Your task to perform on an android device: turn notification dots off Image 0: 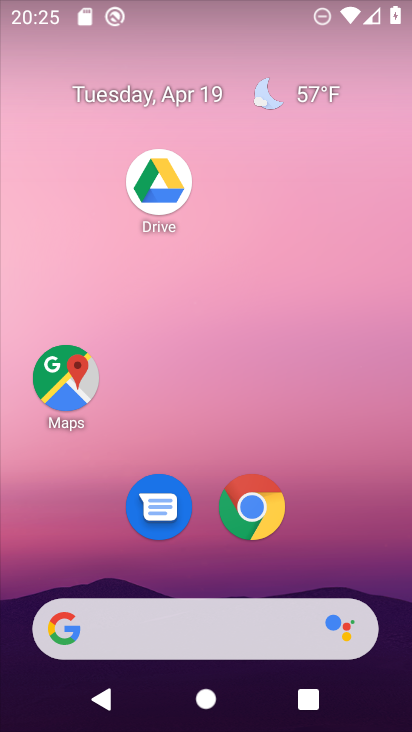
Step 0: drag from (349, 518) to (297, 132)
Your task to perform on an android device: turn notification dots off Image 1: 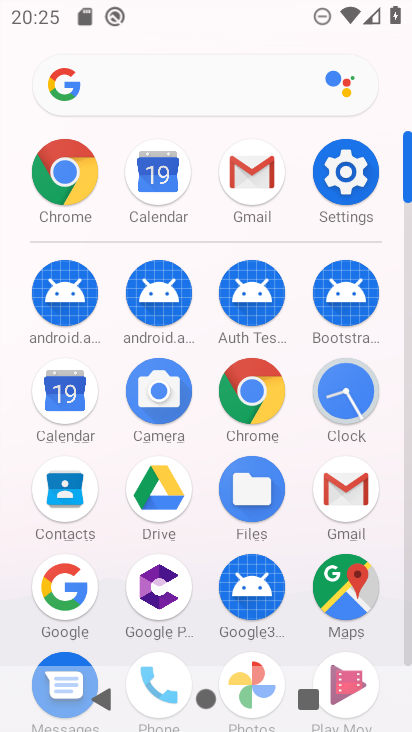
Step 1: click (333, 169)
Your task to perform on an android device: turn notification dots off Image 2: 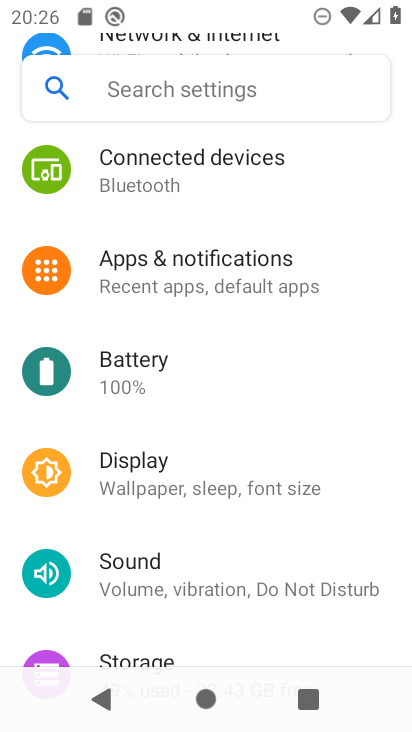
Step 2: click (258, 266)
Your task to perform on an android device: turn notification dots off Image 3: 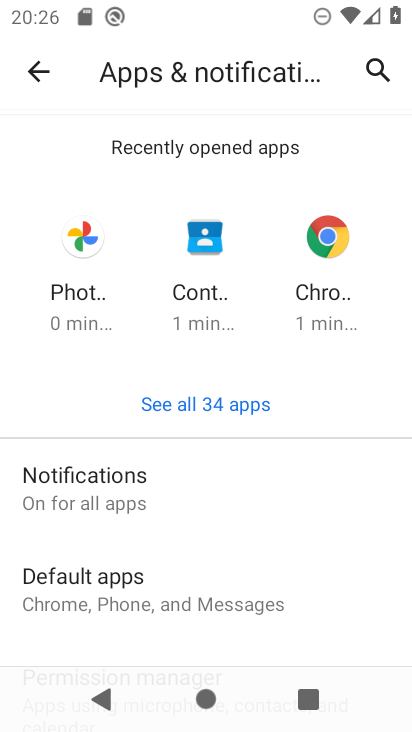
Step 3: click (187, 495)
Your task to perform on an android device: turn notification dots off Image 4: 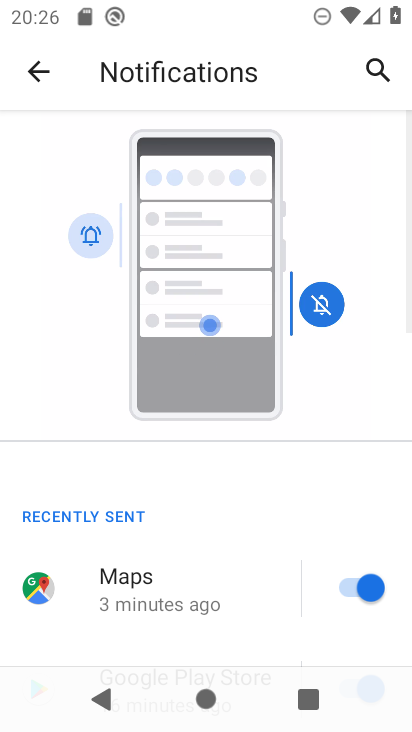
Step 4: drag from (212, 546) to (221, 196)
Your task to perform on an android device: turn notification dots off Image 5: 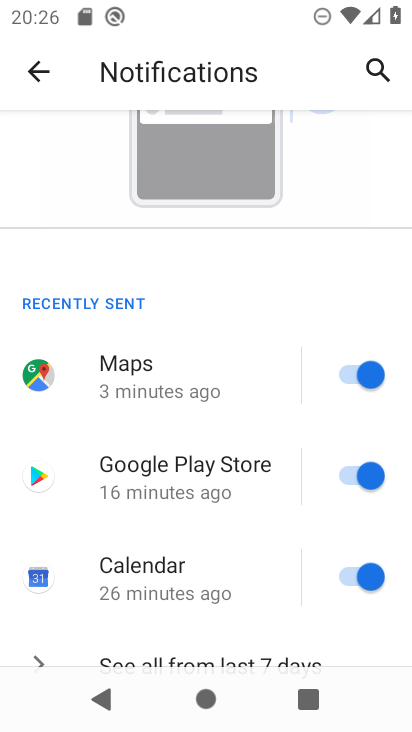
Step 5: drag from (253, 547) to (269, 225)
Your task to perform on an android device: turn notification dots off Image 6: 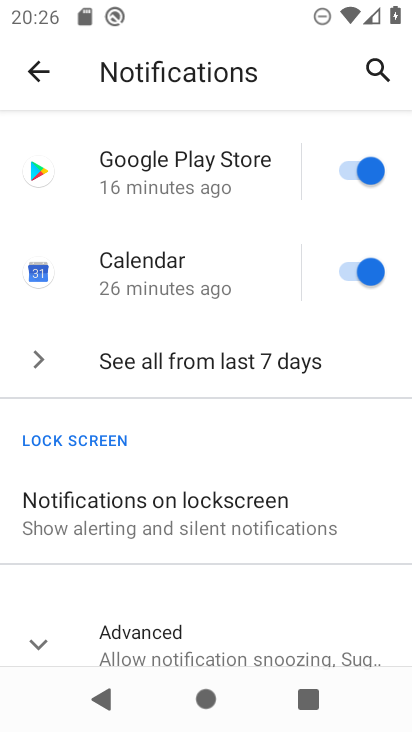
Step 6: click (34, 636)
Your task to perform on an android device: turn notification dots off Image 7: 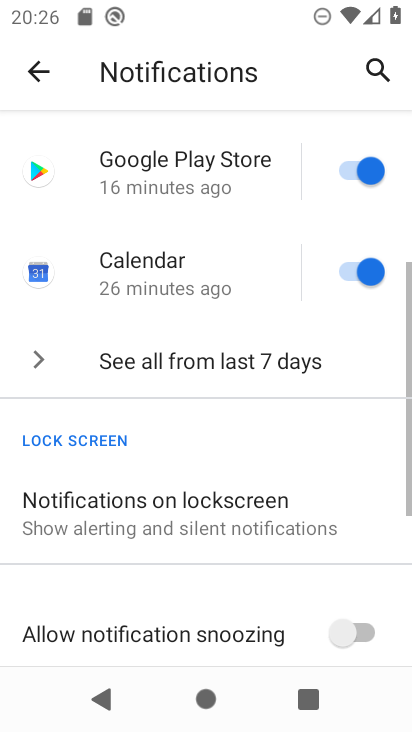
Step 7: drag from (227, 595) to (221, 206)
Your task to perform on an android device: turn notification dots off Image 8: 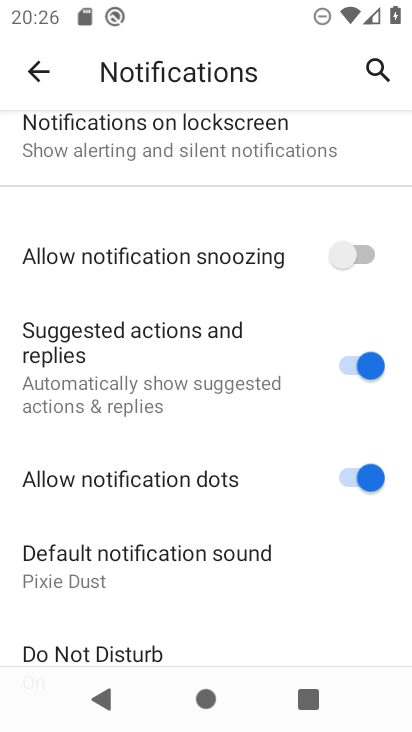
Step 8: click (351, 477)
Your task to perform on an android device: turn notification dots off Image 9: 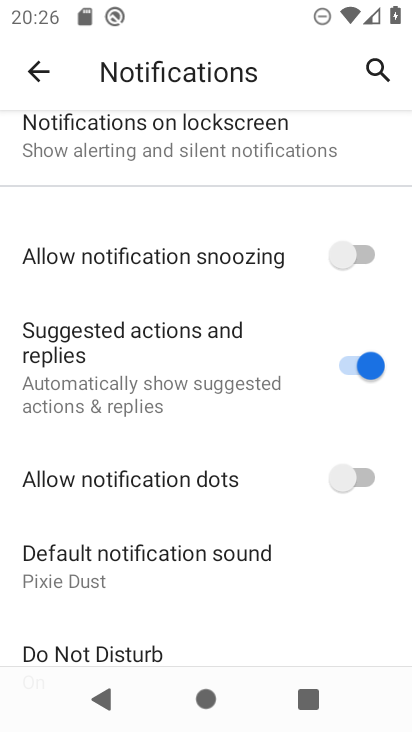
Step 9: task complete